Your task to perform on an android device: Open notification settings Image 0: 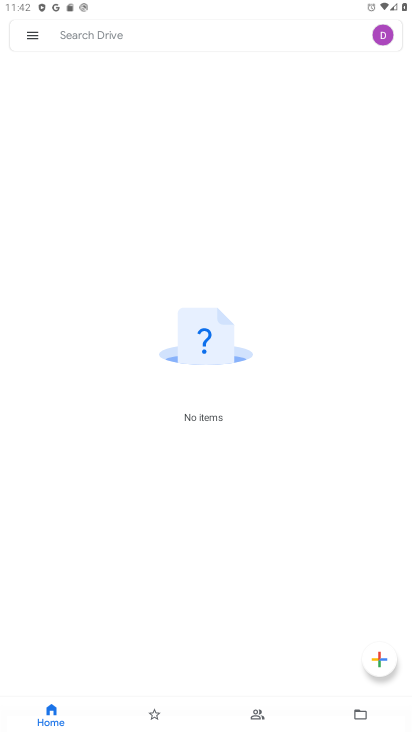
Step 0: drag from (226, 580) to (184, 7)
Your task to perform on an android device: Open notification settings Image 1: 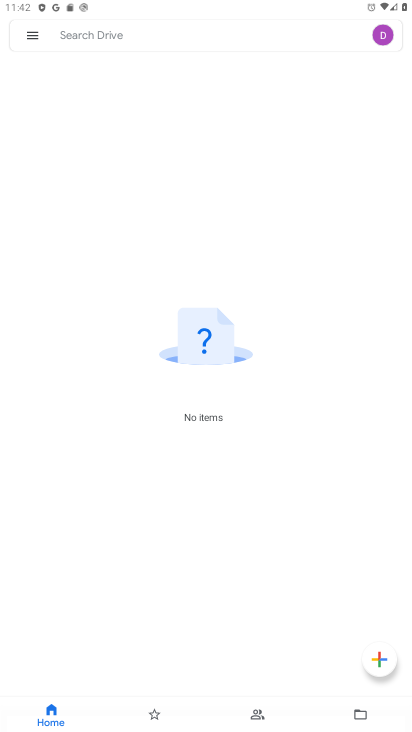
Step 1: press home button
Your task to perform on an android device: Open notification settings Image 2: 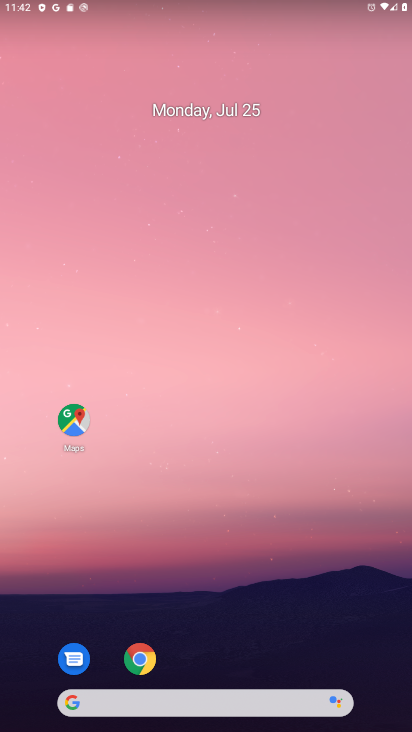
Step 2: drag from (215, 611) to (239, 40)
Your task to perform on an android device: Open notification settings Image 3: 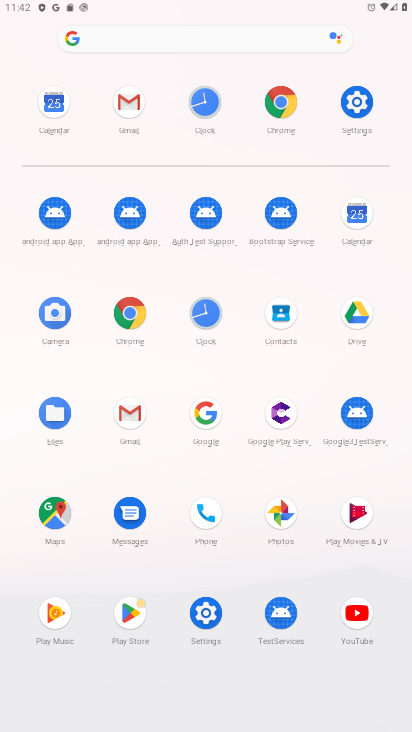
Step 3: click (354, 99)
Your task to perform on an android device: Open notification settings Image 4: 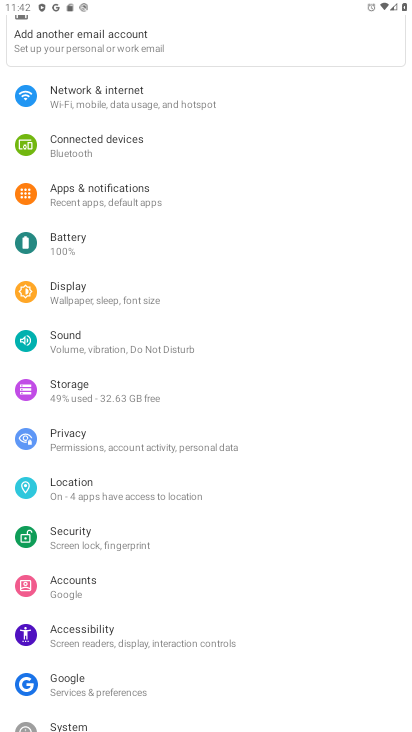
Step 4: click (93, 182)
Your task to perform on an android device: Open notification settings Image 5: 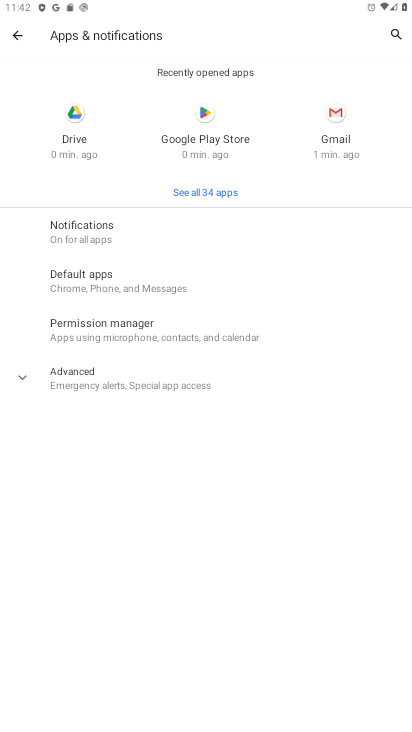
Step 5: task complete